Your task to perform on an android device: Show the shopping cart on newegg. Search for "razer blade" on newegg, select the first entry, add it to the cart, then select checkout. Image 0: 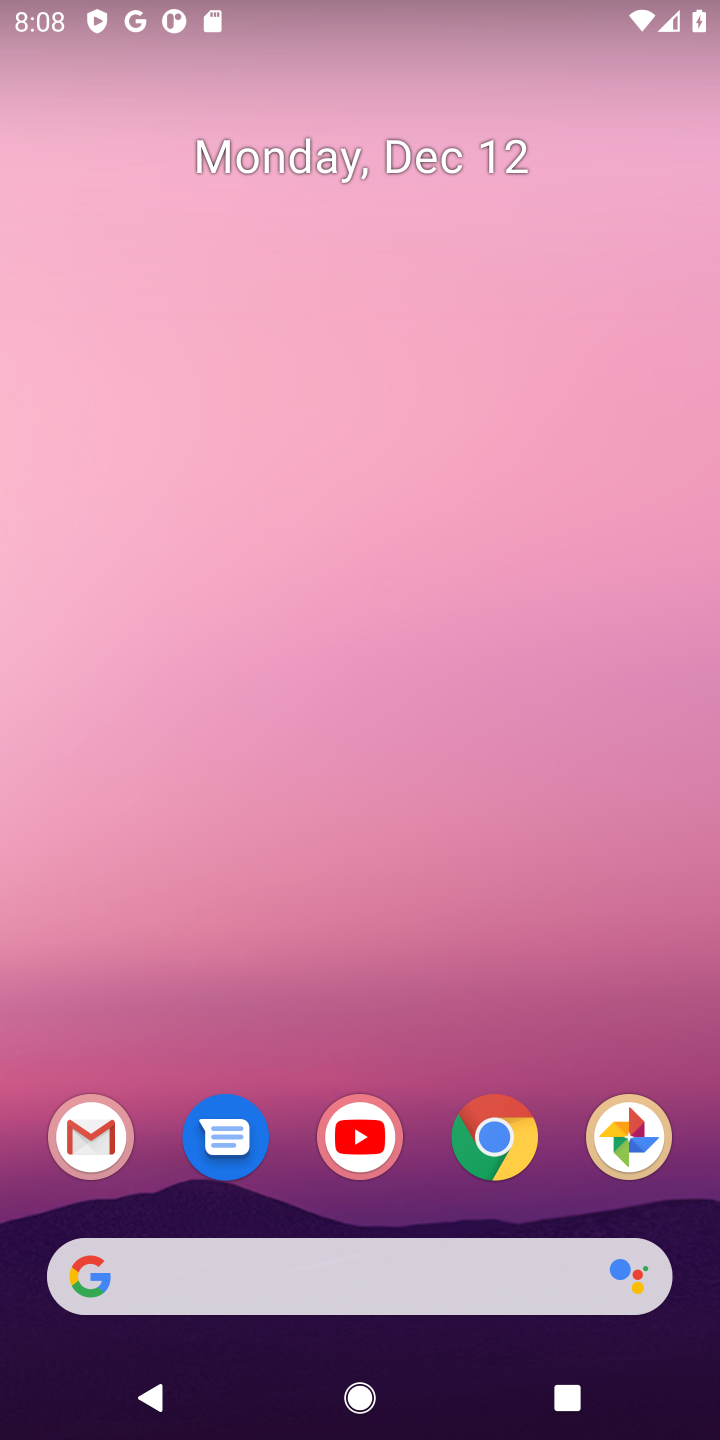
Step 0: task complete